Your task to perform on an android device: Show me recent news Image 0: 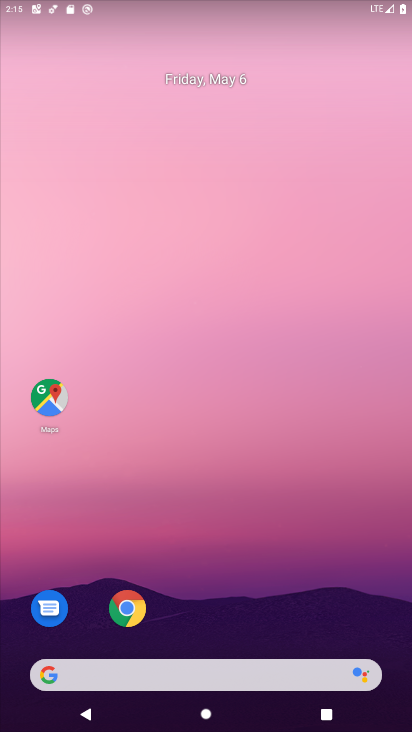
Step 0: drag from (247, 627) to (280, 102)
Your task to perform on an android device: Show me recent news Image 1: 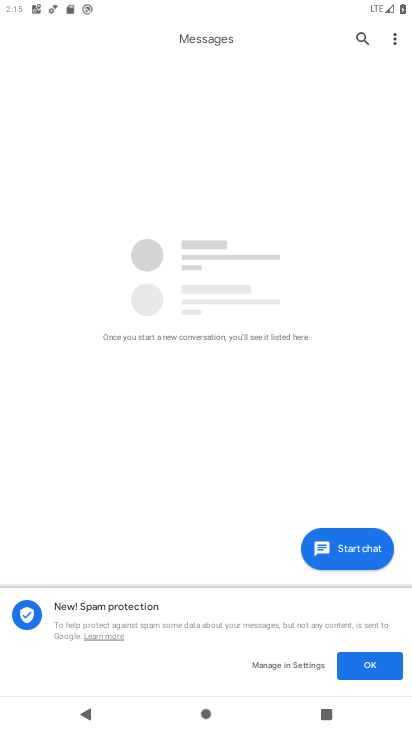
Step 1: press home button
Your task to perform on an android device: Show me recent news Image 2: 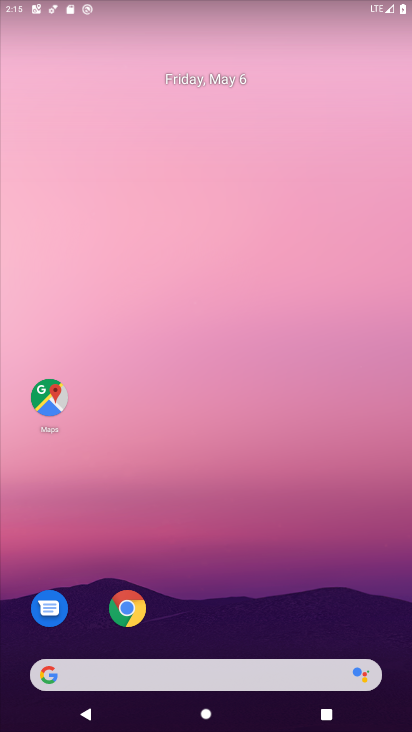
Step 2: drag from (266, 627) to (284, 94)
Your task to perform on an android device: Show me recent news Image 3: 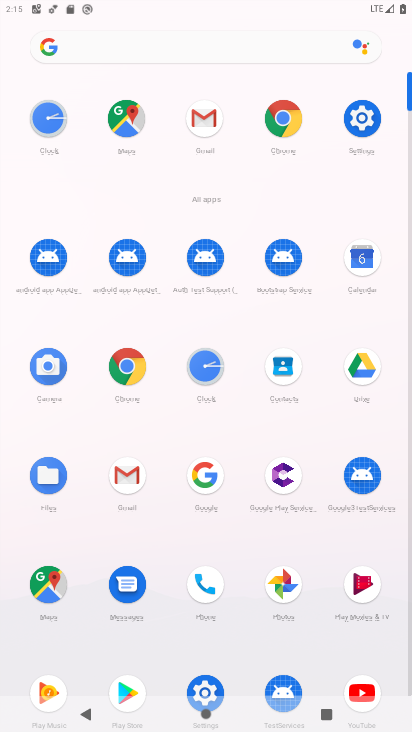
Step 3: click (155, 52)
Your task to perform on an android device: Show me recent news Image 4: 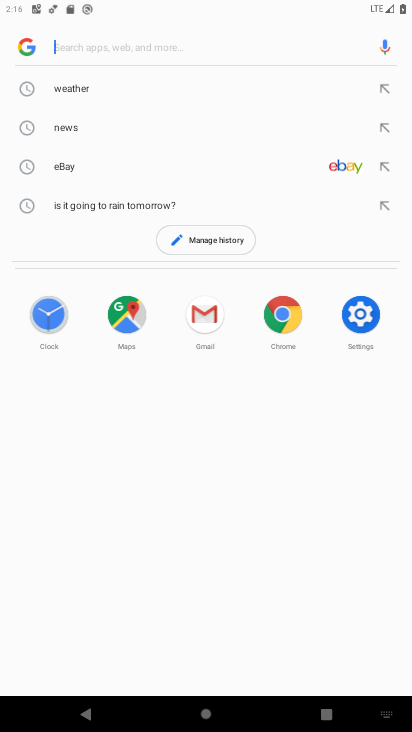
Step 4: type "recent news"
Your task to perform on an android device: Show me recent news Image 5: 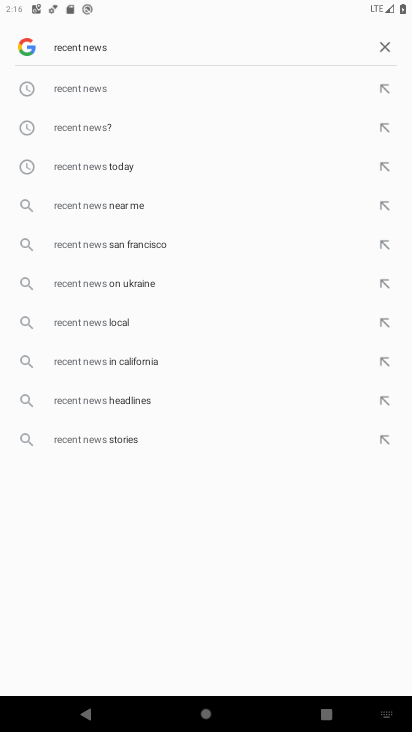
Step 5: click (115, 120)
Your task to perform on an android device: Show me recent news Image 6: 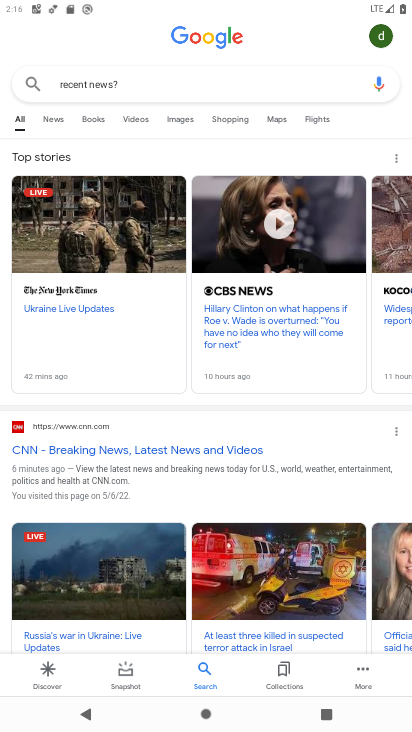
Step 6: task complete